Your task to perform on an android device: Open Chrome and go to settings Image 0: 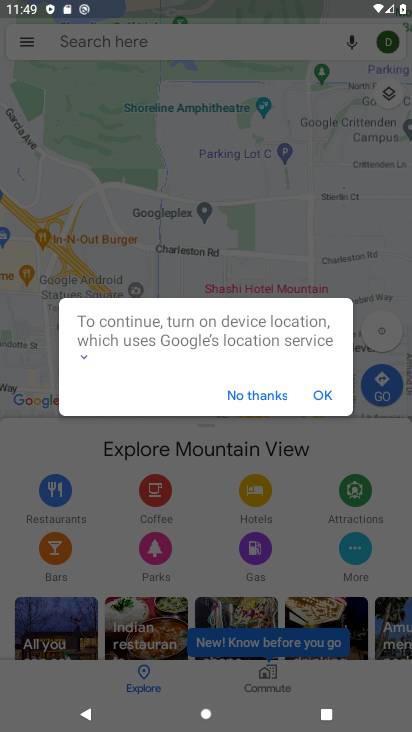
Step 0: press home button
Your task to perform on an android device: Open Chrome and go to settings Image 1: 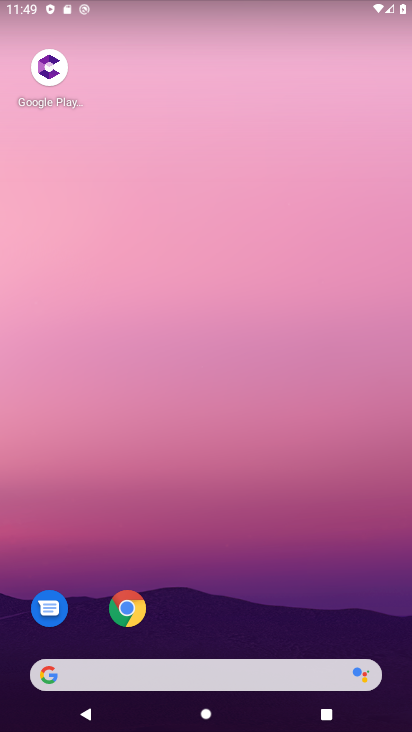
Step 1: drag from (266, 608) to (300, 114)
Your task to perform on an android device: Open Chrome and go to settings Image 2: 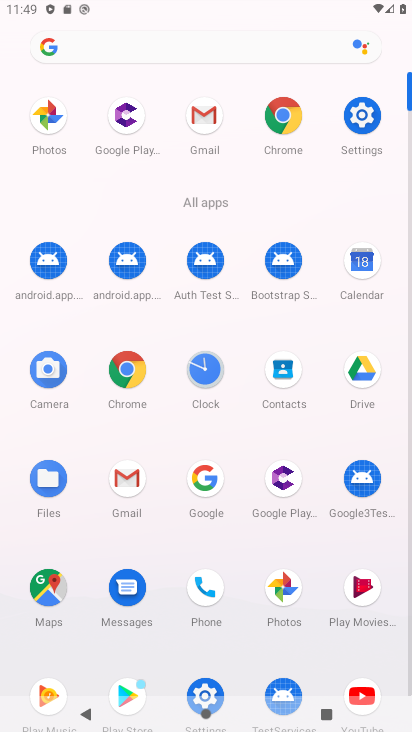
Step 2: click (134, 372)
Your task to perform on an android device: Open Chrome and go to settings Image 3: 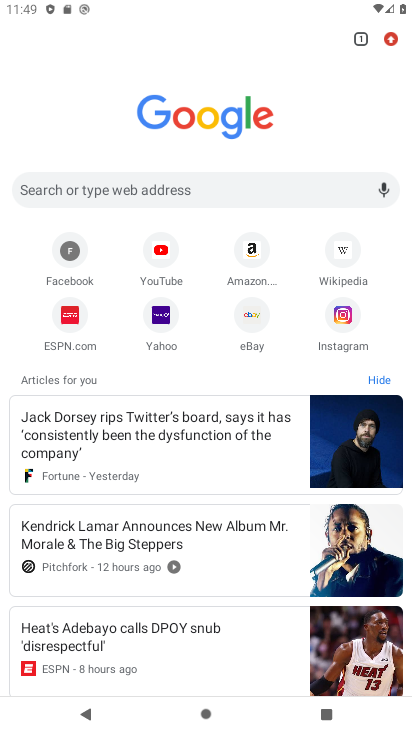
Step 3: click (397, 36)
Your task to perform on an android device: Open Chrome and go to settings Image 4: 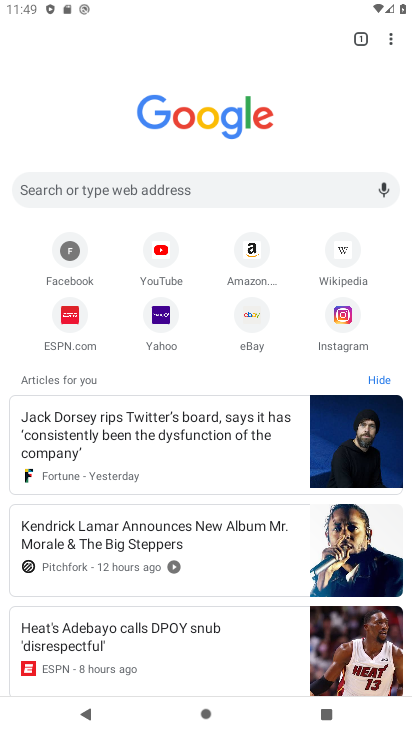
Step 4: click (391, 37)
Your task to perform on an android device: Open Chrome and go to settings Image 5: 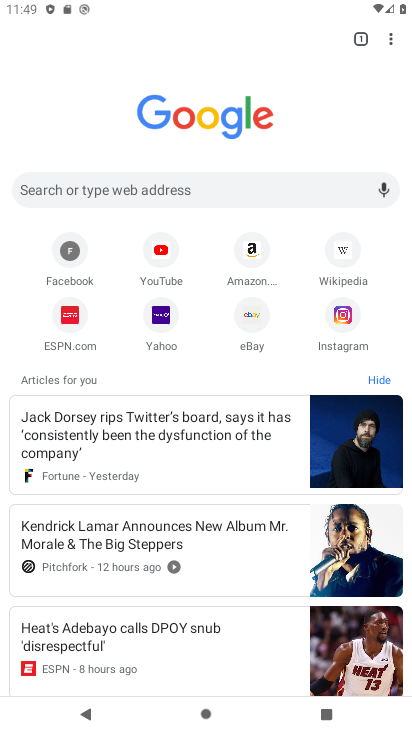
Step 5: task complete